Your task to perform on an android device: Is it going to rain today? Image 0: 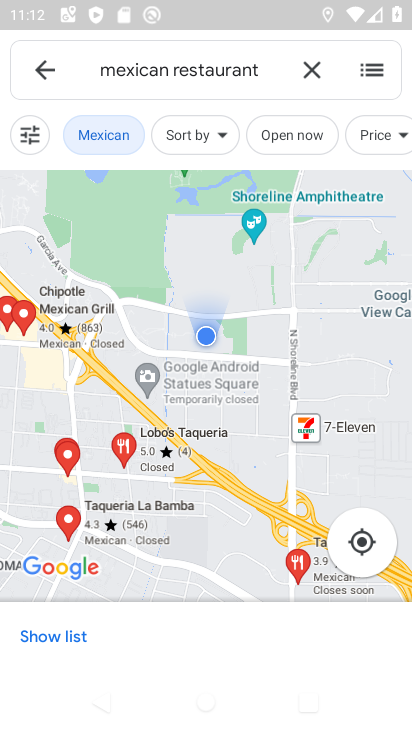
Step 0: press home button
Your task to perform on an android device: Is it going to rain today? Image 1: 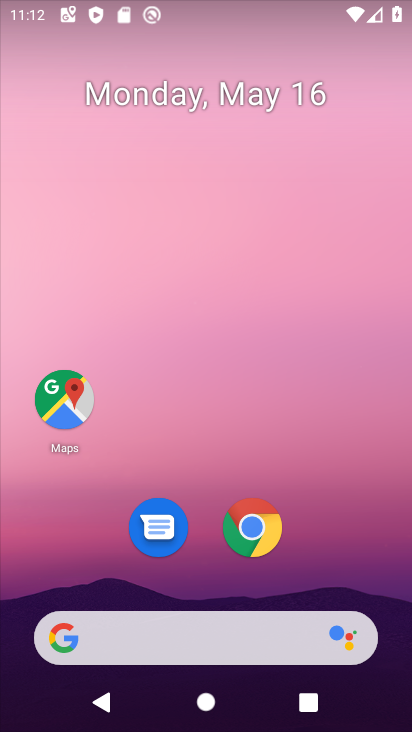
Step 1: drag from (212, 667) to (272, 163)
Your task to perform on an android device: Is it going to rain today? Image 2: 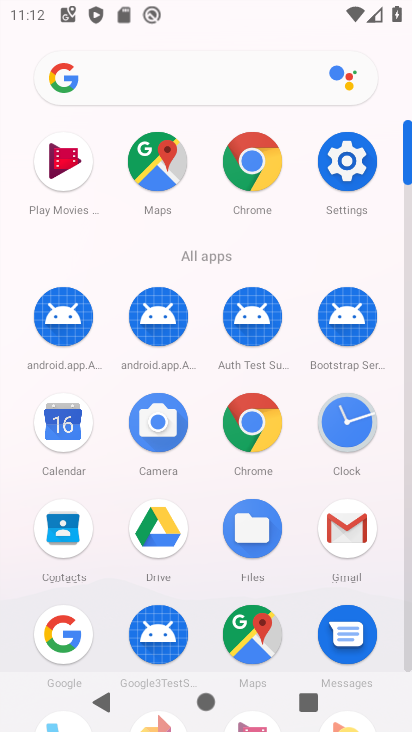
Step 2: click (172, 91)
Your task to perform on an android device: Is it going to rain today? Image 3: 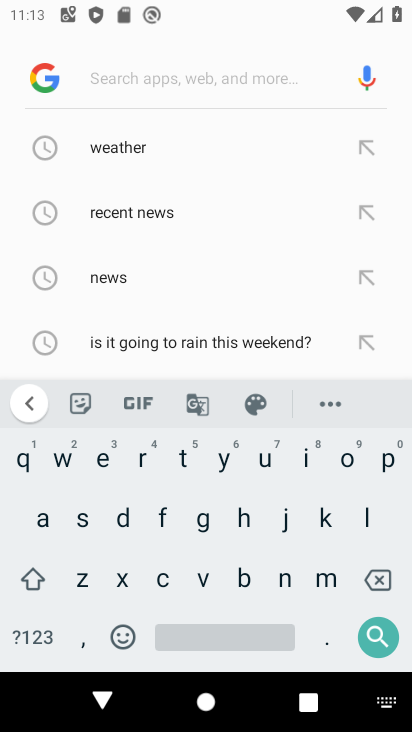
Step 3: click (138, 142)
Your task to perform on an android device: Is it going to rain today? Image 4: 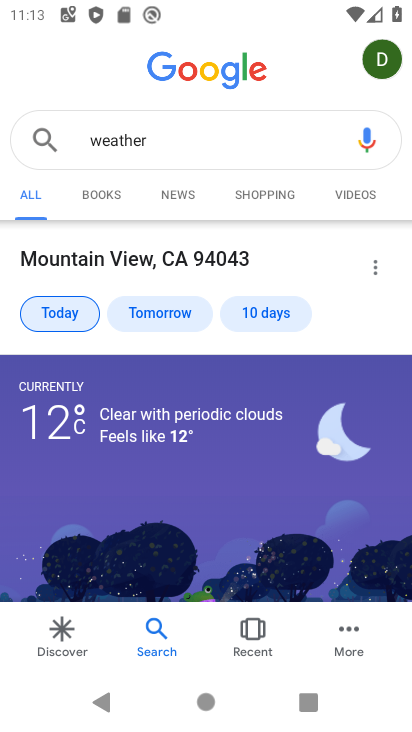
Step 4: task complete